Your task to perform on an android device: Check the weather Image 0: 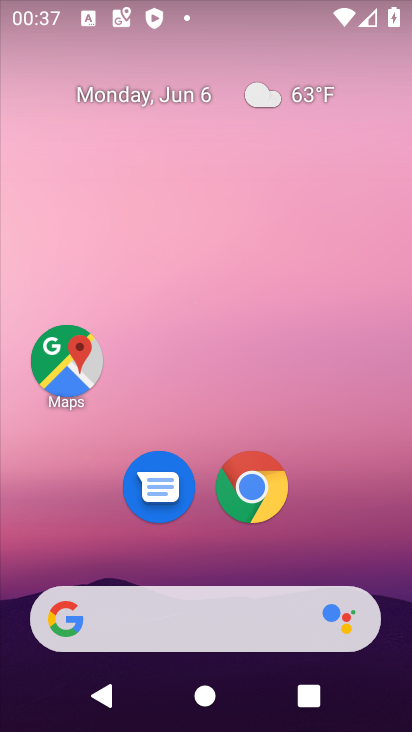
Step 0: click (301, 93)
Your task to perform on an android device: Check the weather Image 1: 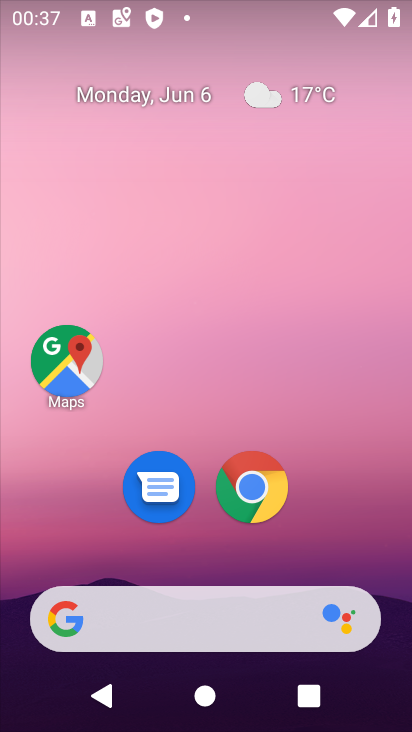
Step 1: click (309, 98)
Your task to perform on an android device: Check the weather Image 2: 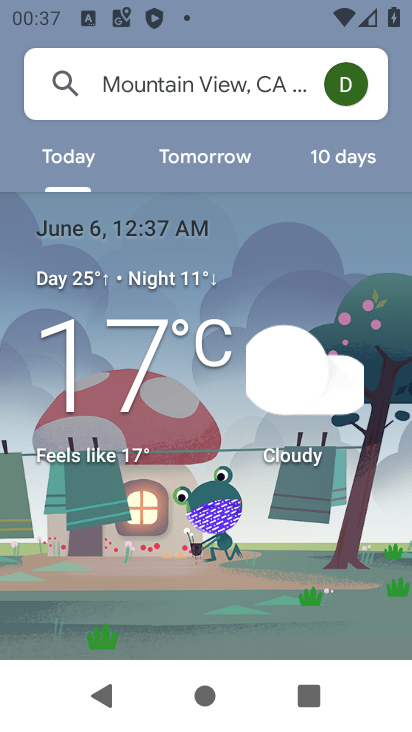
Step 2: task complete